Your task to perform on an android device: move an email to a new category in the gmail app Image 0: 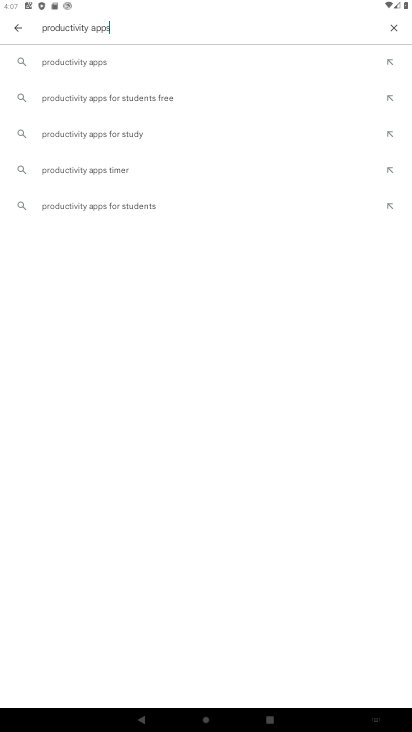
Step 0: press home button
Your task to perform on an android device: move an email to a new category in the gmail app Image 1: 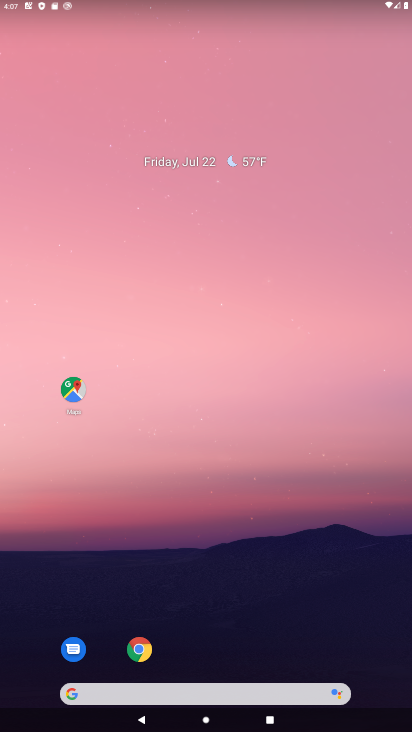
Step 1: drag from (62, 621) to (161, 155)
Your task to perform on an android device: move an email to a new category in the gmail app Image 2: 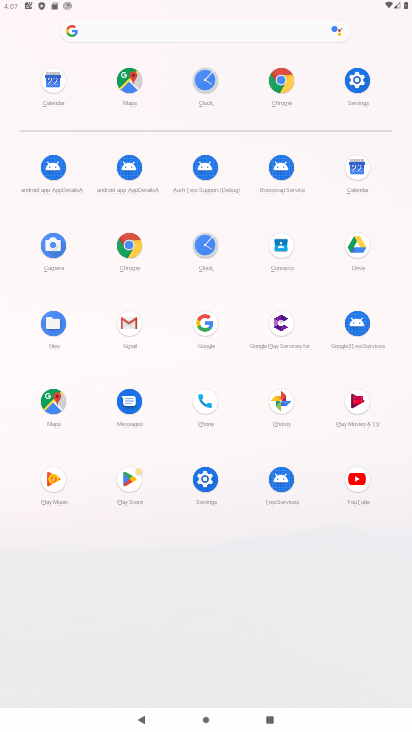
Step 2: click (118, 323)
Your task to perform on an android device: move an email to a new category in the gmail app Image 3: 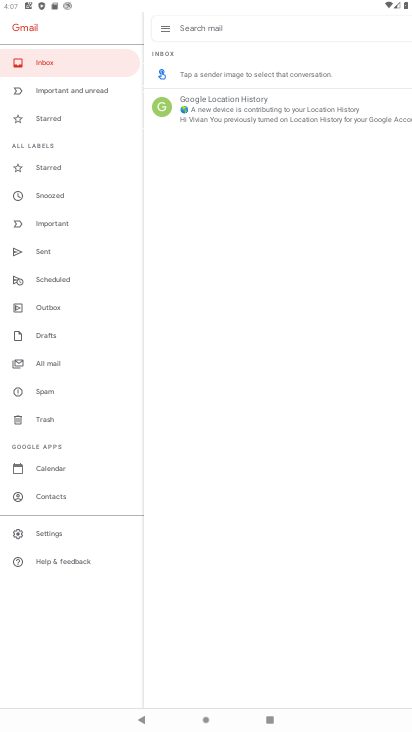
Step 3: click (73, 62)
Your task to perform on an android device: move an email to a new category in the gmail app Image 4: 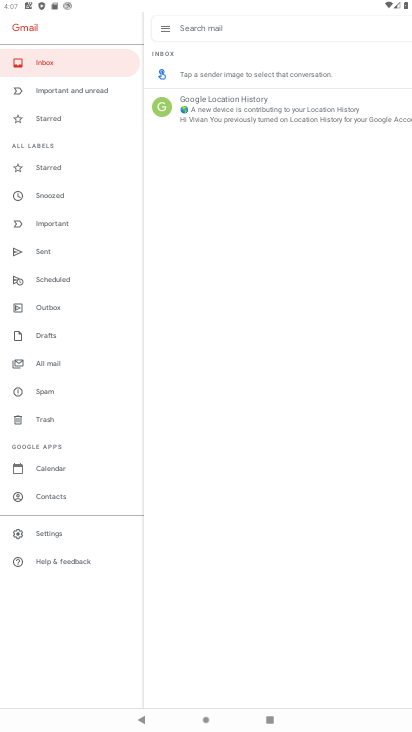
Step 4: task complete